Your task to perform on an android device: show emergency info Image 0: 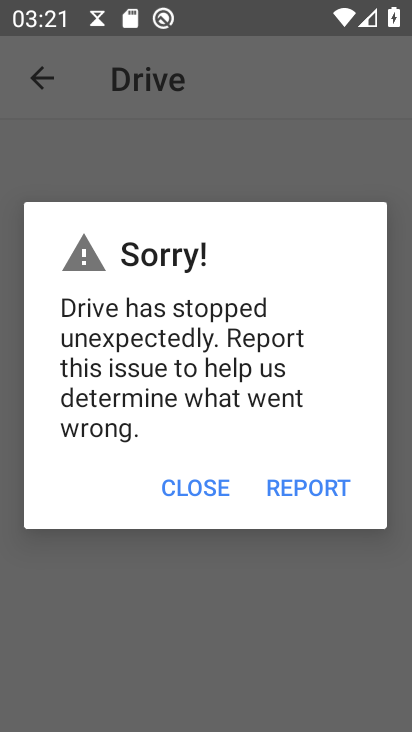
Step 0: press home button
Your task to perform on an android device: show emergency info Image 1: 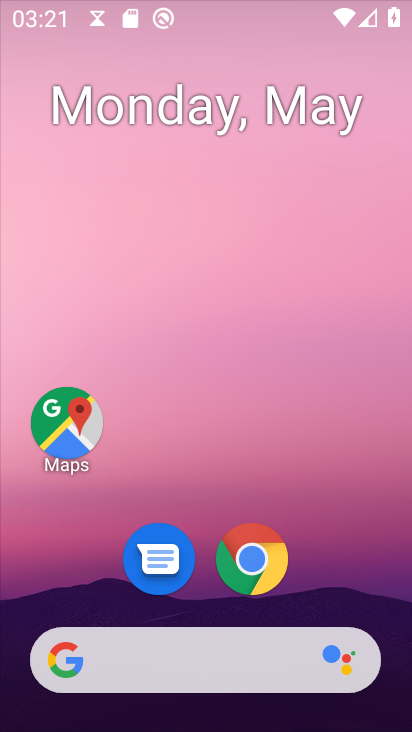
Step 1: drag from (272, 551) to (323, 216)
Your task to perform on an android device: show emergency info Image 2: 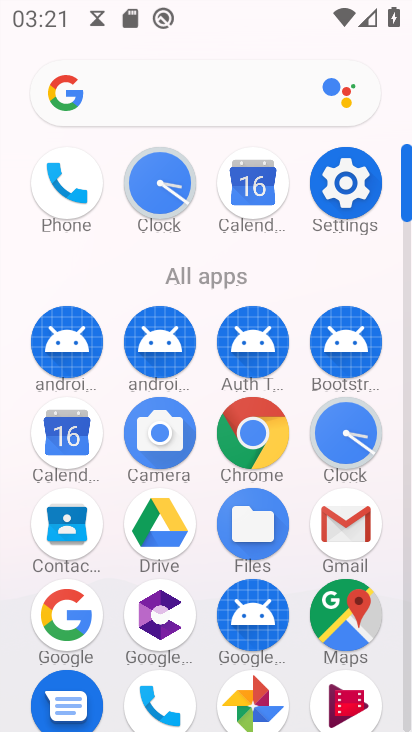
Step 2: click (355, 183)
Your task to perform on an android device: show emergency info Image 3: 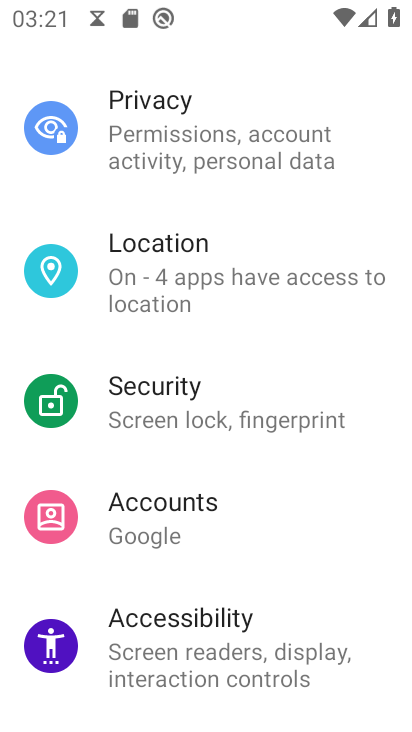
Step 3: drag from (213, 582) to (301, 83)
Your task to perform on an android device: show emergency info Image 4: 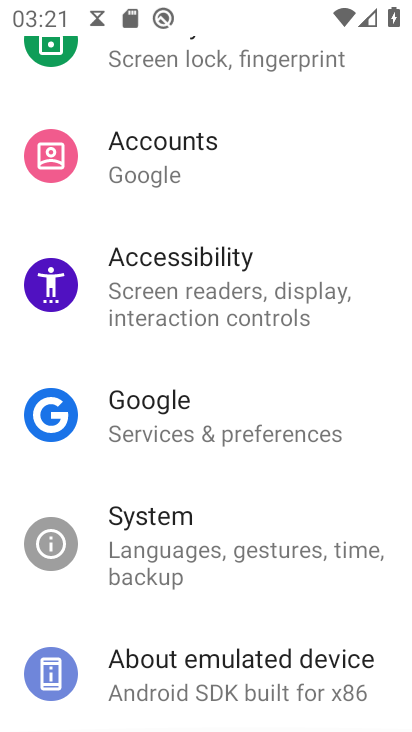
Step 4: drag from (113, 581) to (305, 115)
Your task to perform on an android device: show emergency info Image 5: 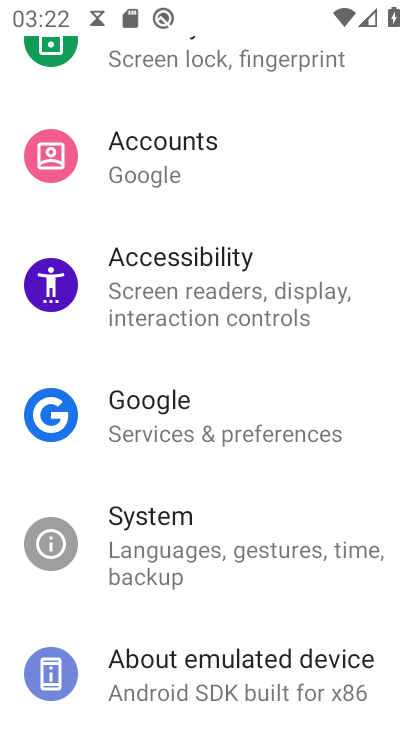
Step 5: click (155, 671)
Your task to perform on an android device: show emergency info Image 6: 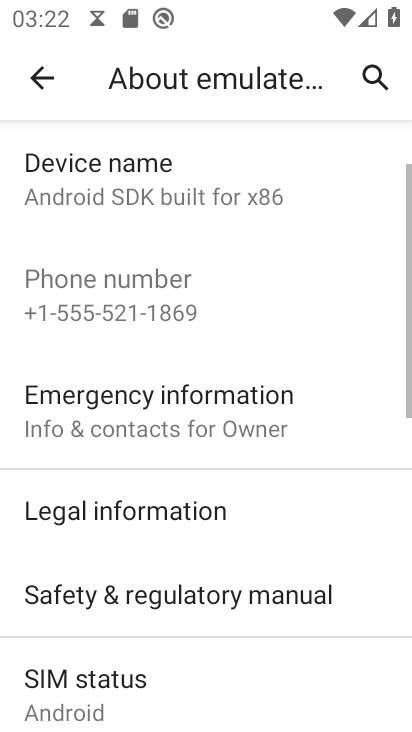
Step 6: click (175, 430)
Your task to perform on an android device: show emergency info Image 7: 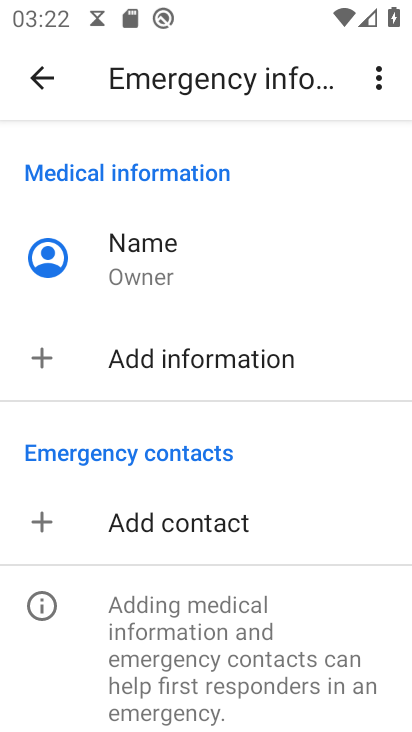
Step 7: task complete